Your task to perform on an android device: manage bookmarks in the chrome app Image 0: 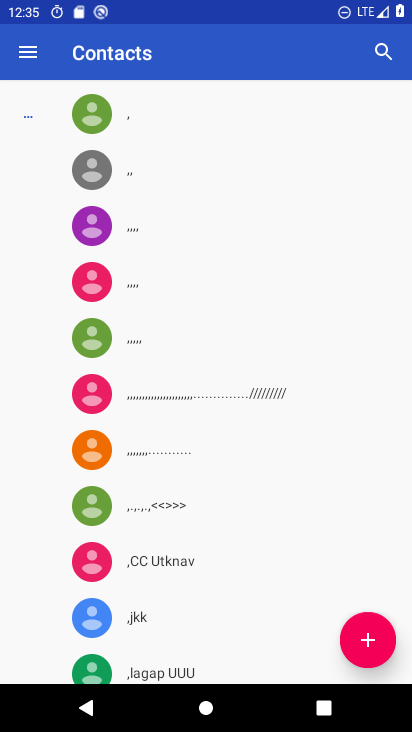
Step 0: press home button
Your task to perform on an android device: manage bookmarks in the chrome app Image 1: 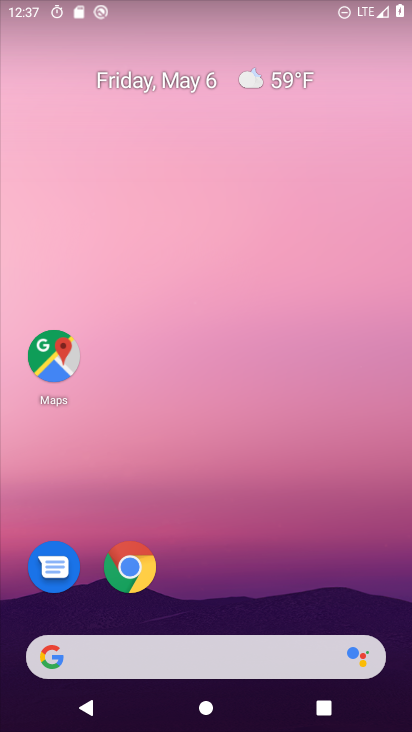
Step 1: click (138, 574)
Your task to perform on an android device: manage bookmarks in the chrome app Image 2: 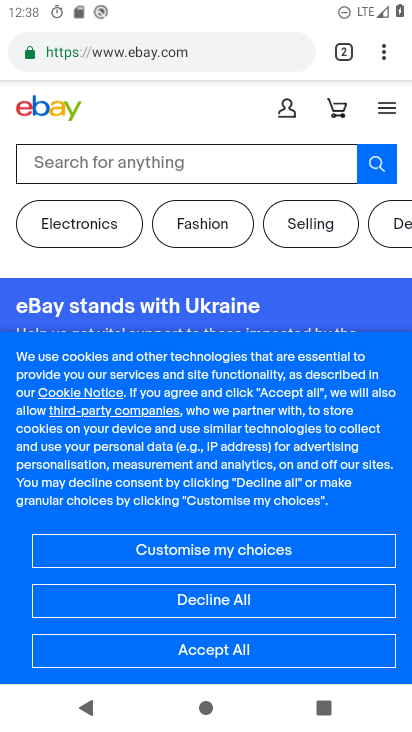
Step 2: click (384, 54)
Your task to perform on an android device: manage bookmarks in the chrome app Image 3: 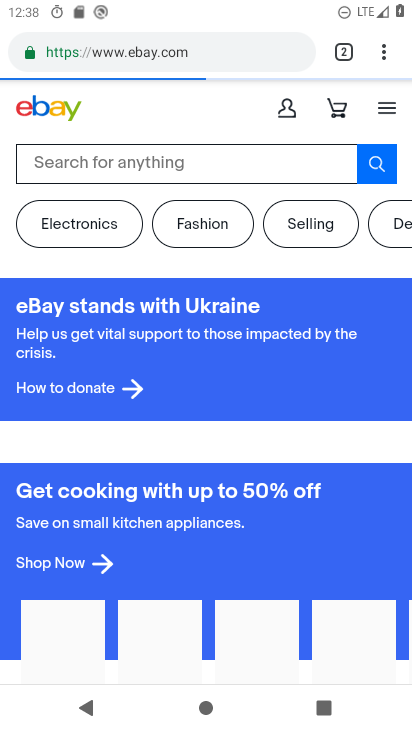
Step 3: click (384, 54)
Your task to perform on an android device: manage bookmarks in the chrome app Image 4: 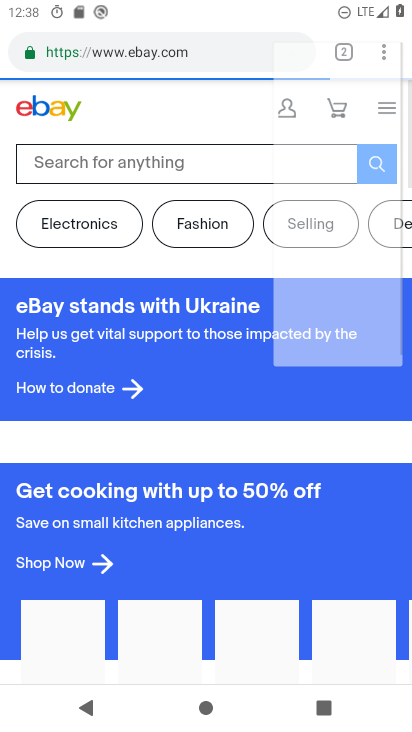
Step 4: click (384, 54)
Your task to perform on an android device: manage bookmarks in the chrome app Image 5: 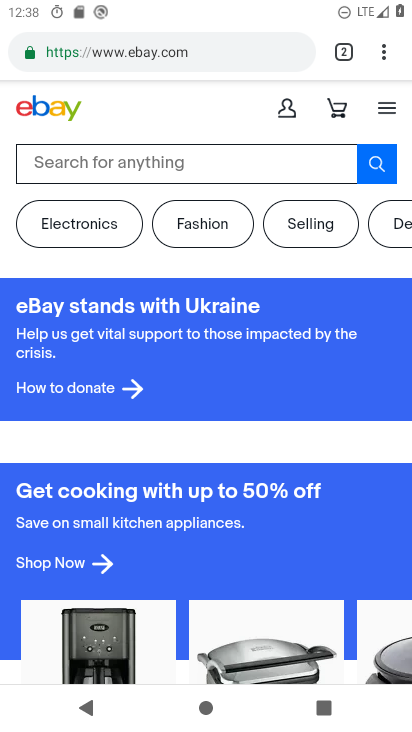
Step 5: click (380, 56)
Your task to perform on an android device: manage bookmarks in the chrome app Image 6: 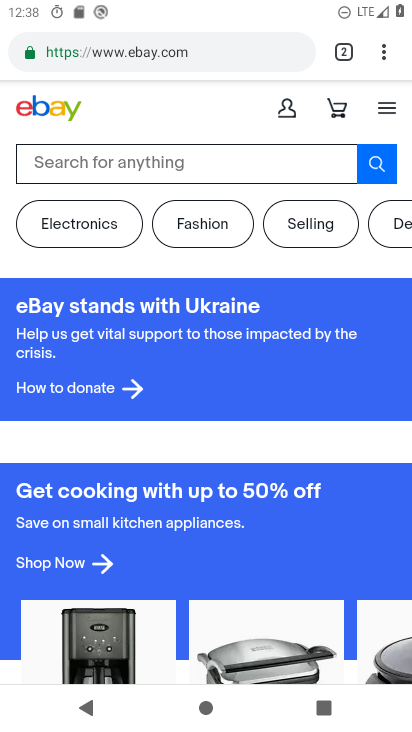
Step 6: drag from (380, 56) to (212, 191)
Your task to perform on an android device: manage bookmarks in the chrome app Image 7: 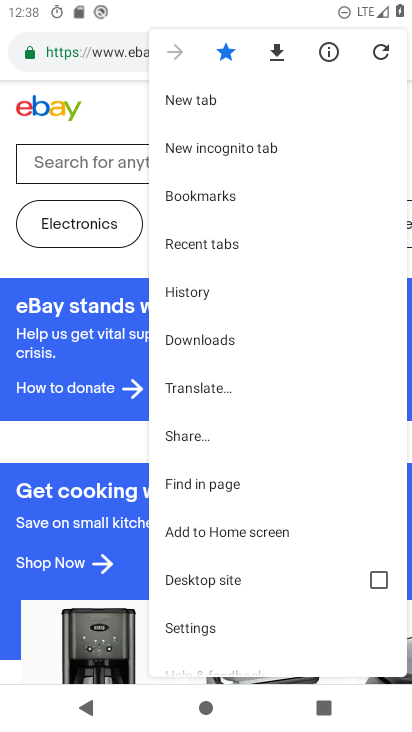
Step 7: click (210, 196)
Your task to perform on an android device: manage bookmarks in the chrome app Image 8: 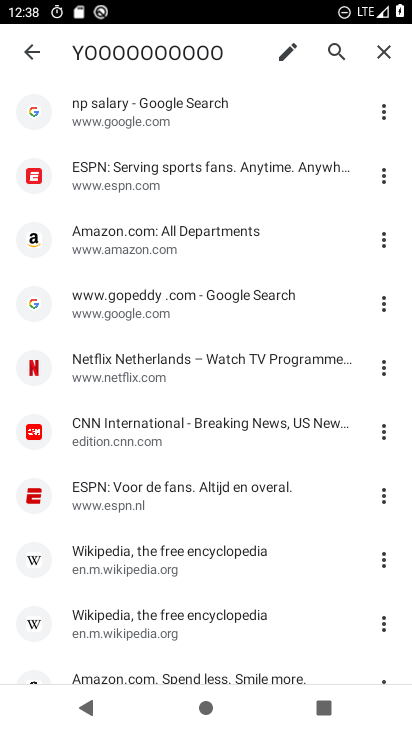
Step 8: click (380, 565)
Your task to perform on an android device: manage bookmarks in the chrome app Image 9: 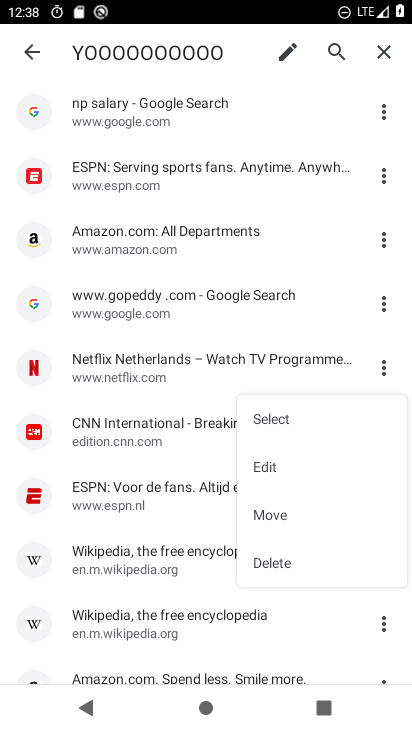
Step 9: click (290, 565)
Your task to perform on an android device: manage bookmarks in the chrome app Image 10: 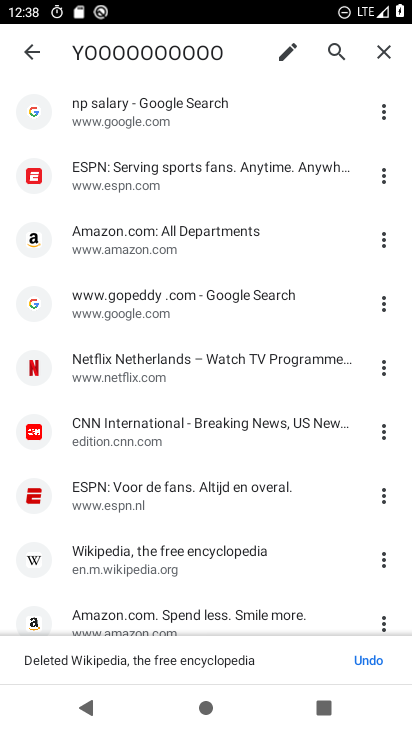
Step 10: task complete